Your task to perform on an android device: stop showing notifications on the lock screen Image 0: 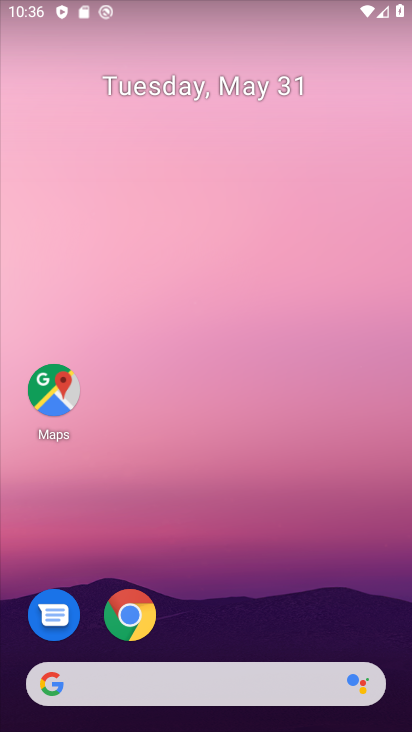
Step 0: drag from (210, 612) to (167, 86)
Your task to perform on an android device: stop showing notifications on the lock screen Image 1: 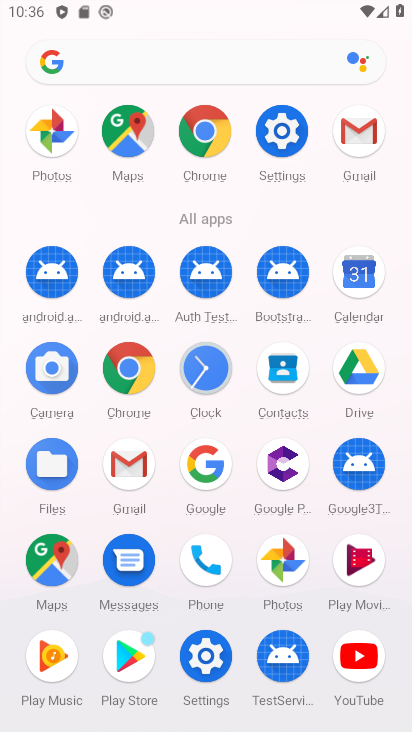
Step 1: click (277, 154)
Your task to perform on an android device: stop showing notifications on the lock screen Image 2: 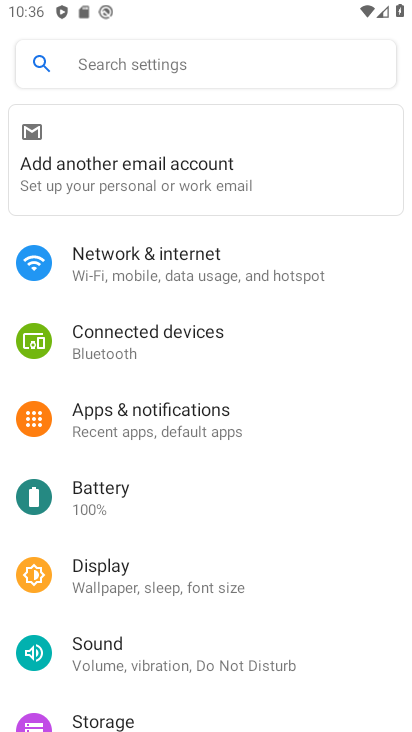
Step 2: task complete